Your task to perform on an android device: change alarm snooze length Image 0: 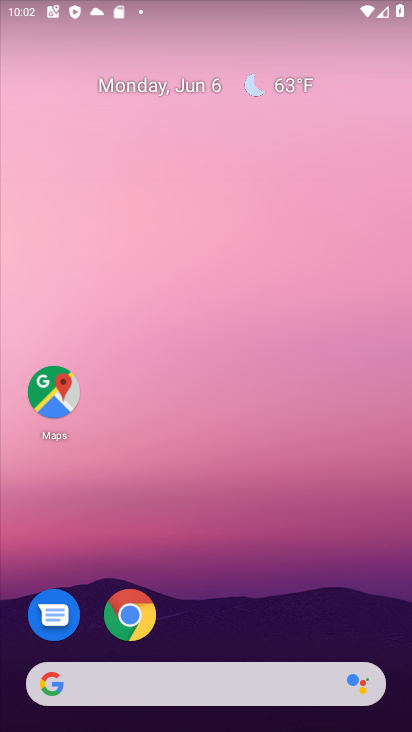
Step 0: drag from (199, 599) to (238, 116)
Your task to perform on an android device: change alarm snooze length Image 1: 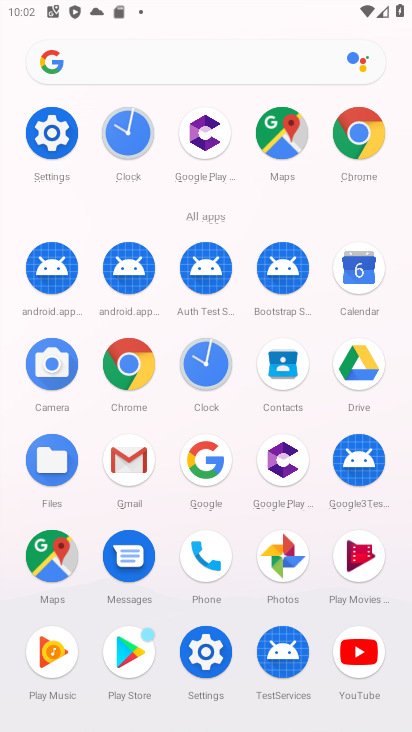
Step 1: click (180, 361)
Your task to perform on an android device: change alarm snooze length Image 2: 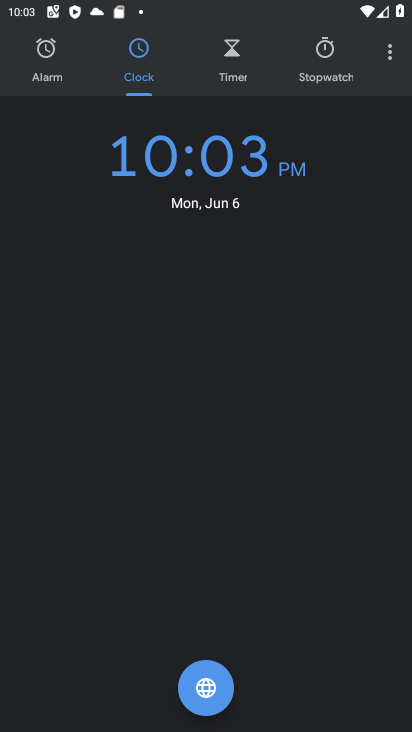
Step 2: click (396, 59)
Your task to perform on an android device: change alarm snooze length Image 3: 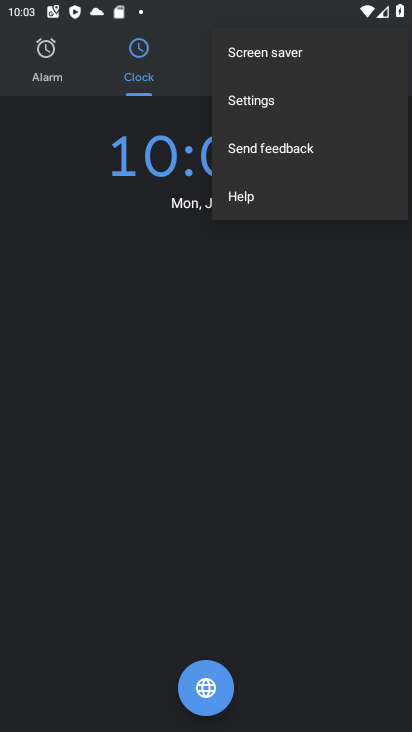
Step 3: click (269, 100)
Your task to perform on an android device: change alarm snooze length Image 4: 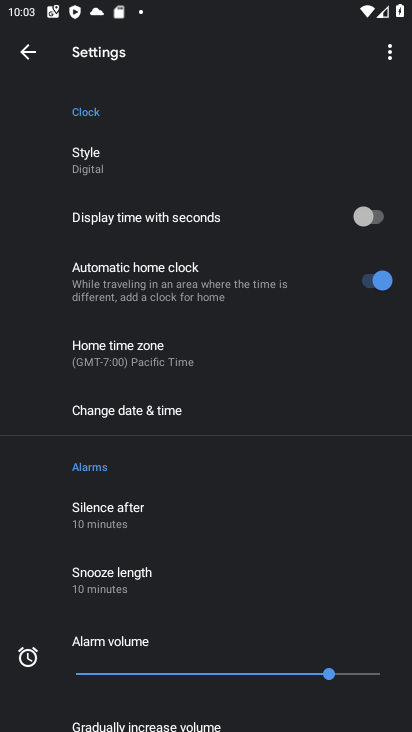
Step 4: click (126, 585)
Your task to perform on an android device: change alarm snooze length Image 5: 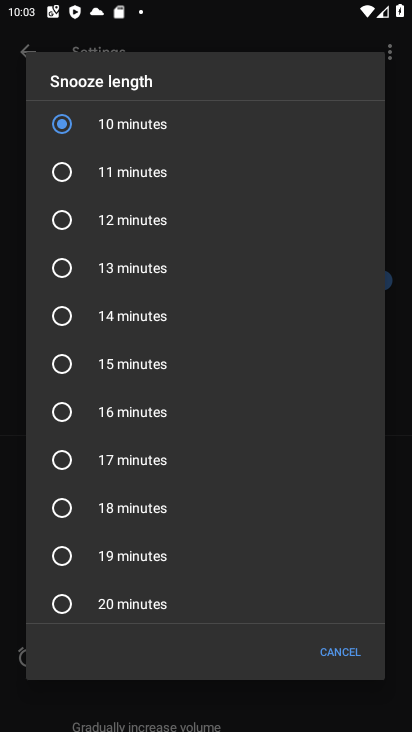
Step 5: click (69, 232)
Your task to perform on an android device: change alarm snooze length Image 6: 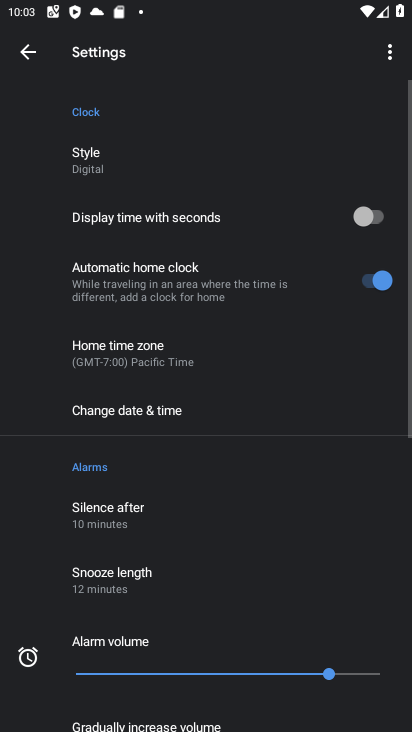
Step 6: task complete